Your task to perform on an android device: add a contact Image 0: 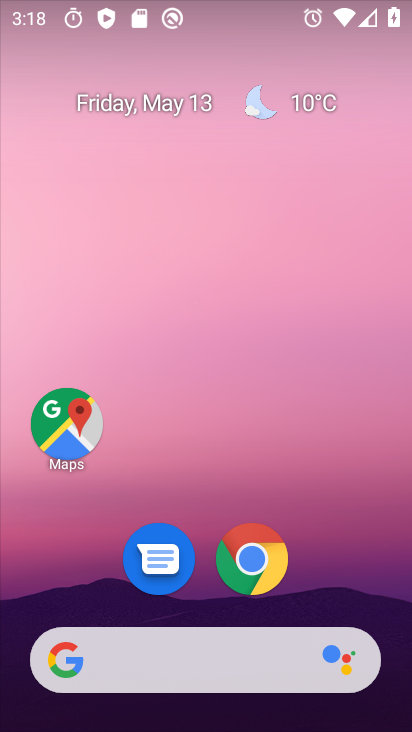
Step 0: drag from (224, 620) to (192, 235)
Your task to perform on an android device: add a contact Image 1: 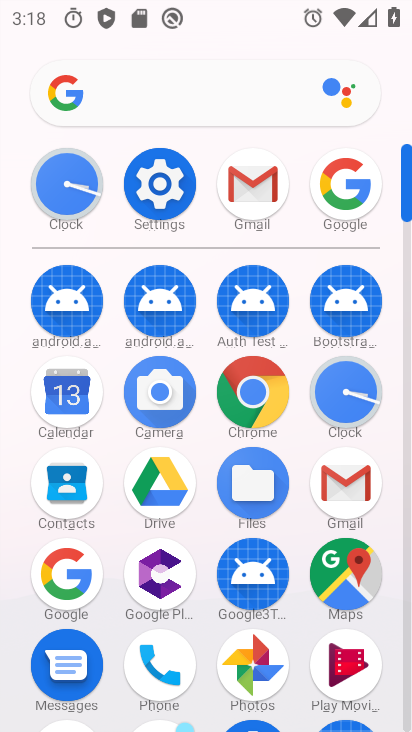
Step 1: click (81, 490)
Your task to perform on an android device: add a contact Image 2: 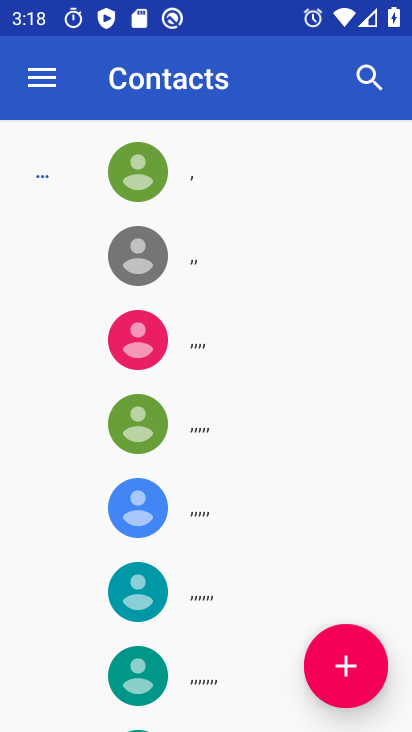
Step 2: click (350, 654)
Your task to perform on an android device: add a contact Image 3: 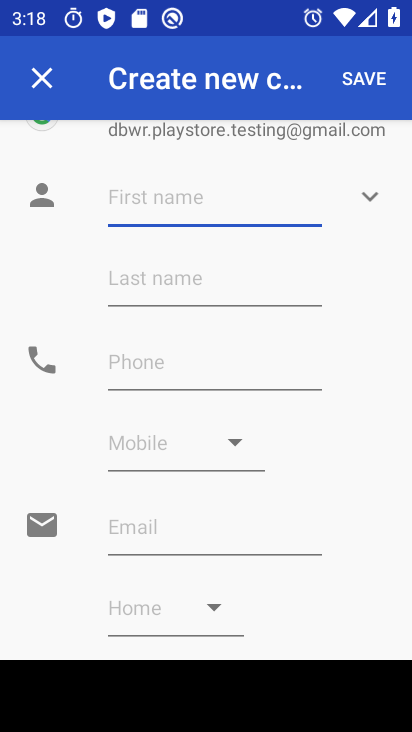
Step 3: type "xcfbf"
Your task to perform on an android device: add a contact Image 4: 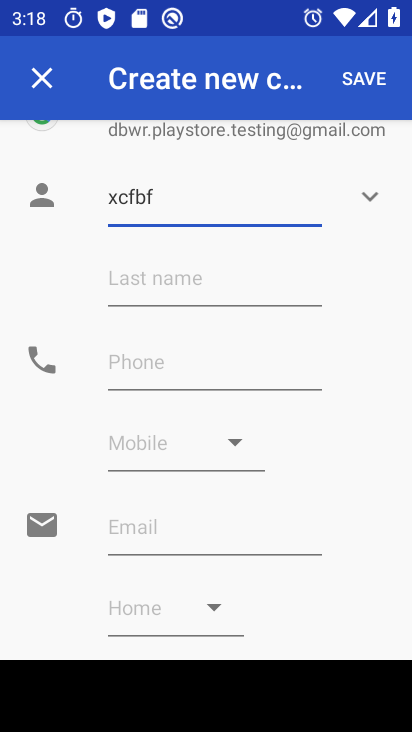
Step 4: click (149, 372)
Your task to perform on an android device: add a contact Image 5: 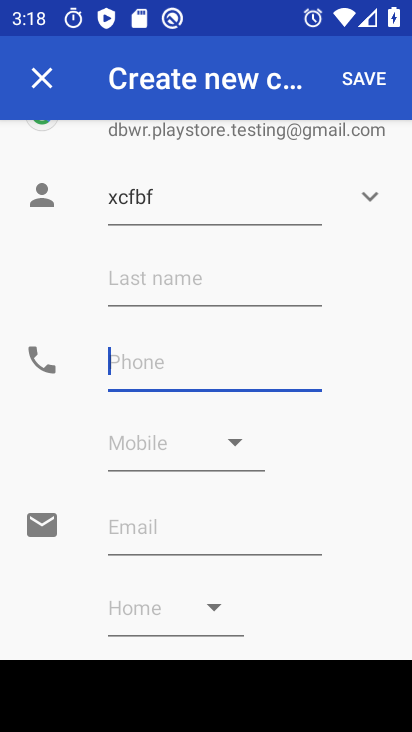
Step 5: type "678679956775876"
Your task to perform on an android device: add a contact Image 6: 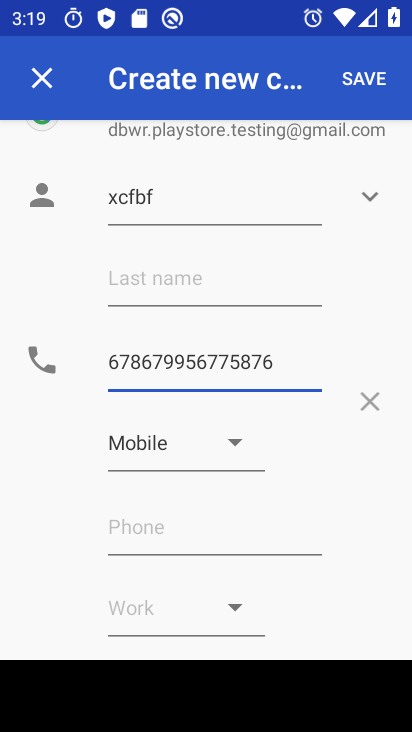
Step 6: click (361, 81)
Your task to perform on an android device: add a contact Image 7: 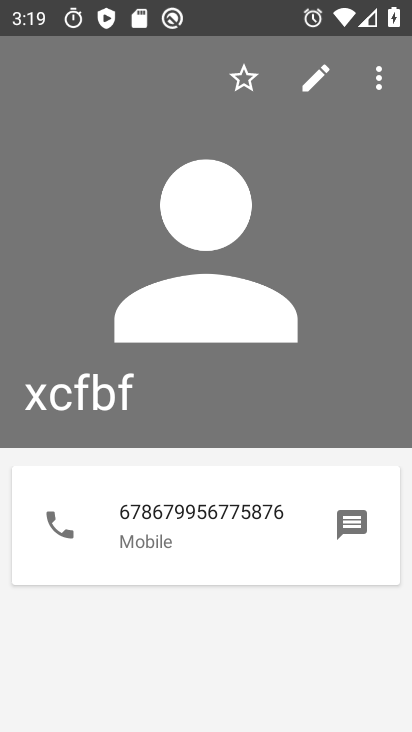
Step 7: task complete